Your task to perform on an android device: choose inbox layout in the gmail app Image 0: 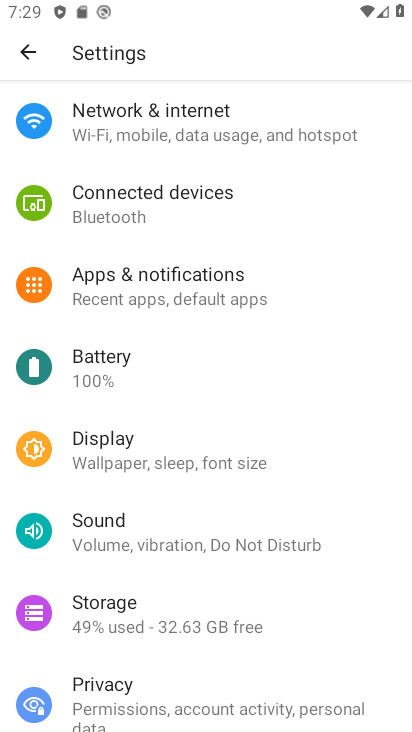
Step 0: press back button
Your task to perform on an android device: choose inbox layout in the gmail app Image 1: 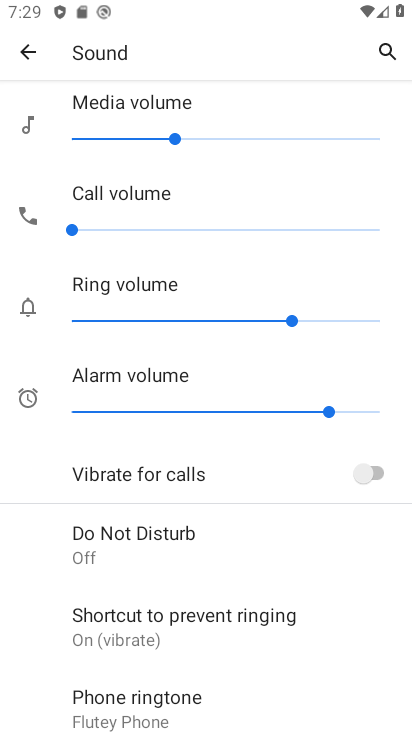
Step 1: press home button
Your task to perform on an android device: choose inbox layout in the gmail app Image 2: 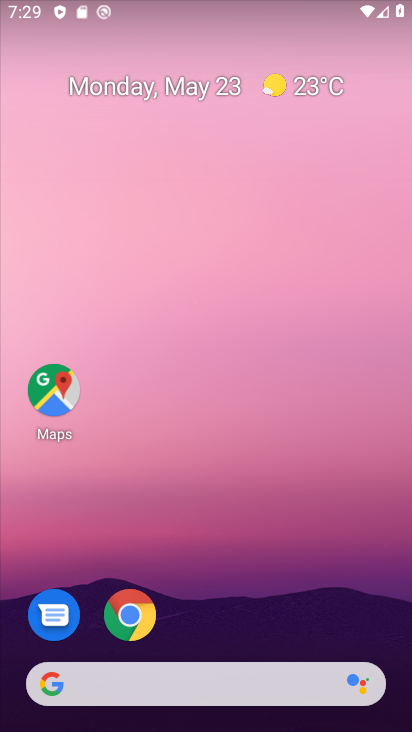
Step 2: drag from (216, 616) to (245, 174)
Your task to perform on an android device: choose inbox layout in the gmail app Image 3: 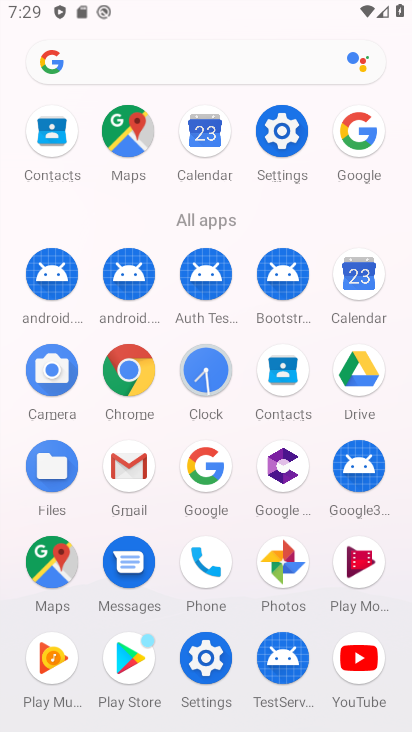
Step 3: click (130, 469)
Your task to perform on an android device: choose inbox layout in the gmail app Image 4: 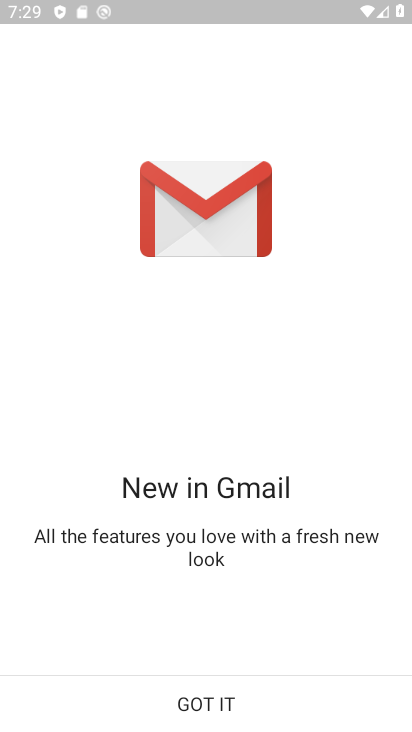
Step 4: click (214, 707)
Your task to perform on an android device: choose inbox layout in the gmail app Image 5: 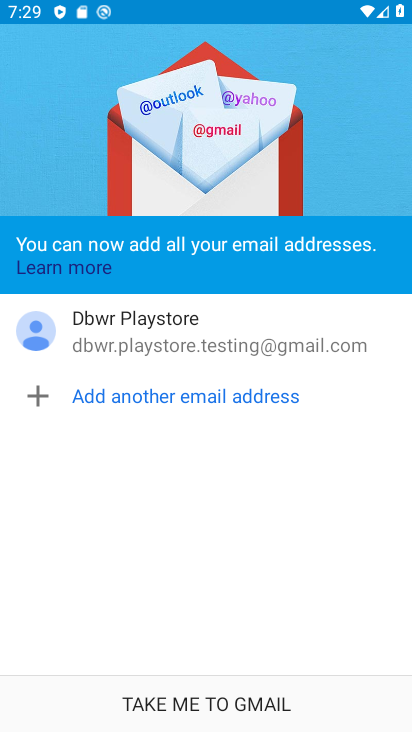
Step 5: click (213, 706)
Your task to perform on an android device: choose inbox layout in the gmail app Image 6: 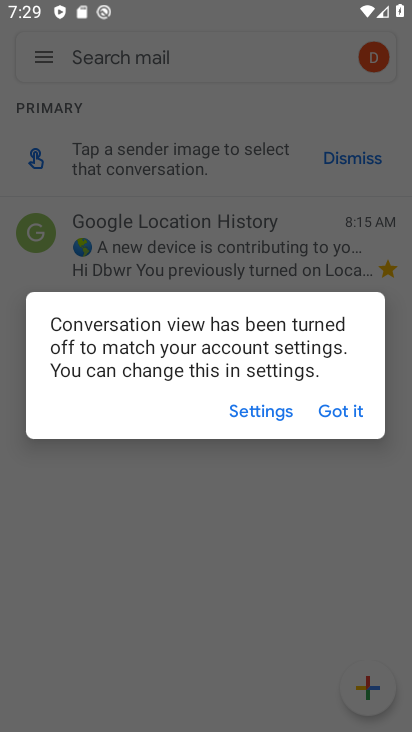
Step 6: click (345, 414)
Your task to perform on an android device: choose inbox layout in the gmail app Image 7: 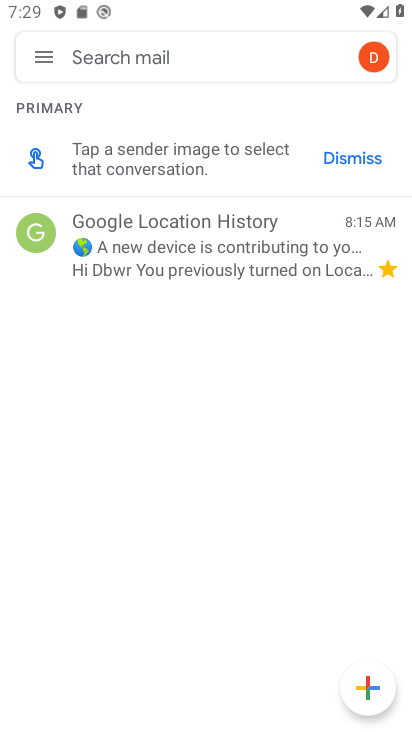
Step 7: click (45, 50)
Your task to perform on an android device: choose inbox layout in the gmail app Image 8: 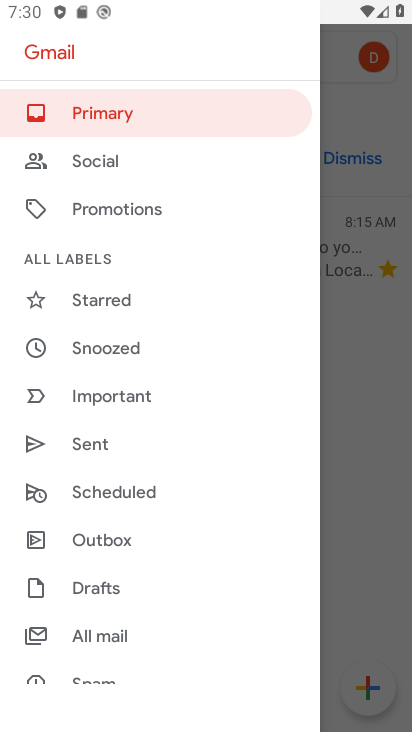
Step 8: drag from (115, 567) to (128, 489)
Your task to perform on an android device: choose inbox layout in the gmail app Image 9: 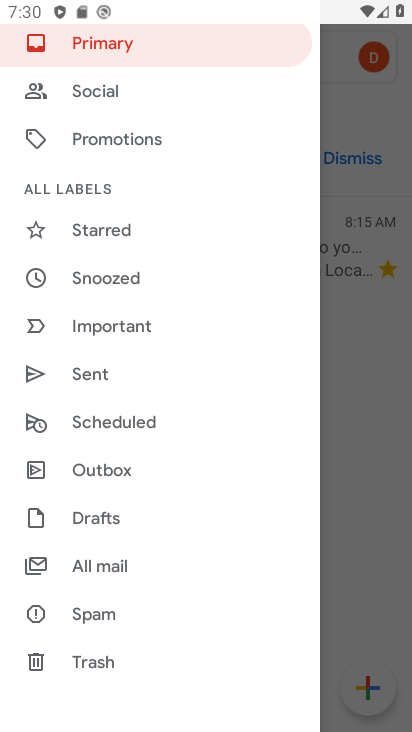
Step 9: drag from (106, 591) to (125, 510)
Your task to perform on an android device: choose inbox layout in the gmail app Image 10: 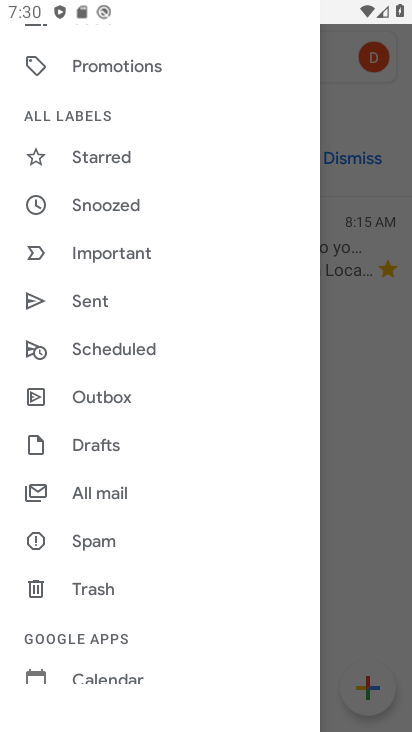
Step 10: drag from (102, 562) to (128, 472)
Your task to perform on an android device: choose inbox layout in the gmail app Image 11: 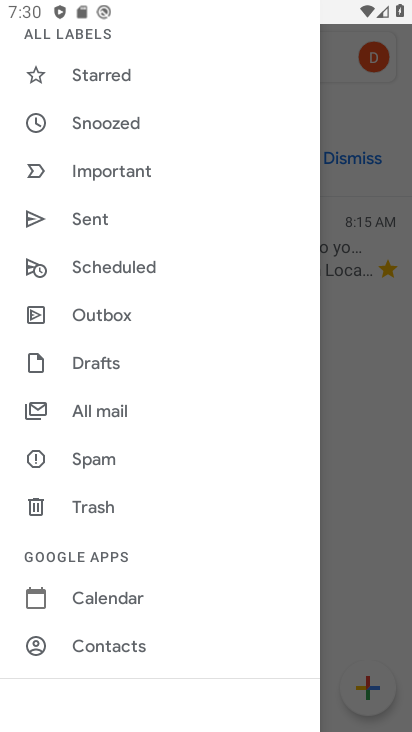
Step 11: drag from (96, 574) to (115, 469)
Your task to perform on an android device: choose inbox layout in the gmail app Image 12: 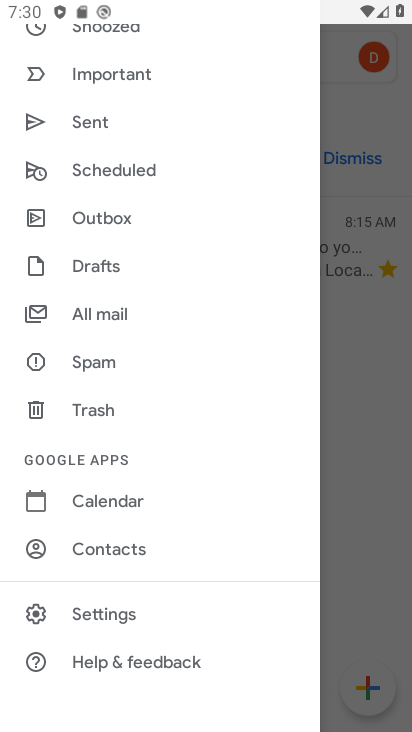
Step 12: drag from (103, 567) to (125, 489)
Your task to perform on an android device: choose inbox layout in the gmail app Image 13: 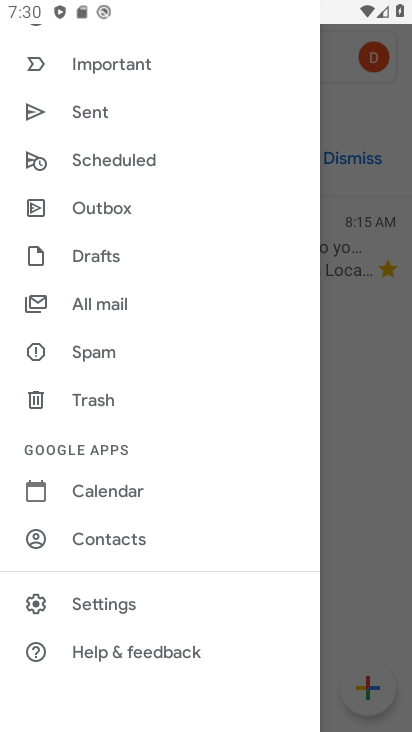
Step 13: click (106, 601)
Your task to perform on an android device: choose inbox layout in the gmail app Image 14: 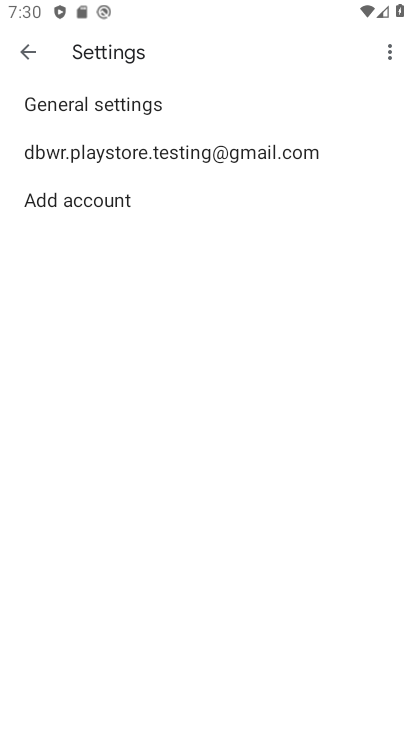
Step 14: click (235, 155)
Your task to perform on an android device: choose inbox layout in the gmail app Image 15: 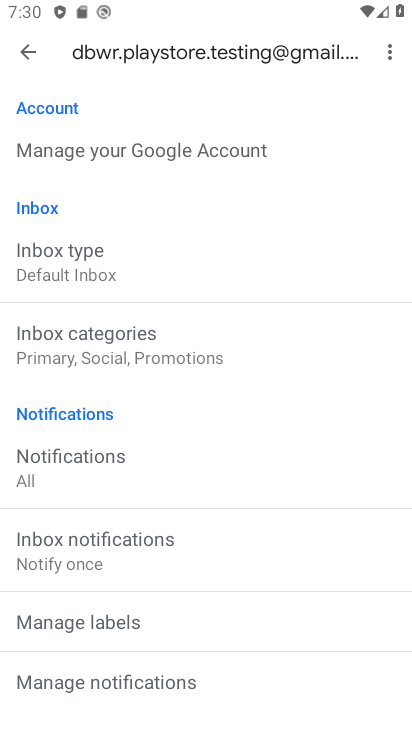
Step 15: click (107, 281)
Your task to perform on an android device: choose inbox layout in the gmail app Image 16: 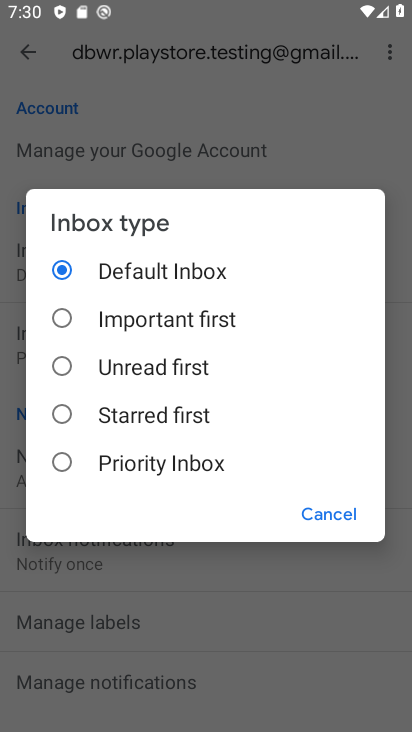
Step 16: click (74, 467)
Your task to perform on an android device: choose inbox layout in the gmail app Image 17: 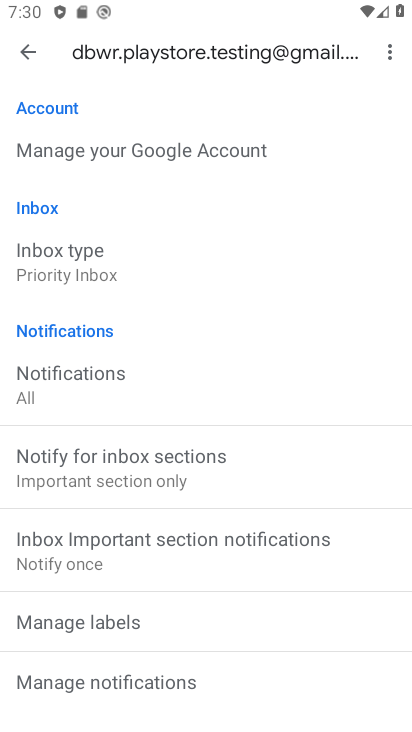
Step 17: task complete